Your task to perform on an android device: all mails in gmail Image 0: 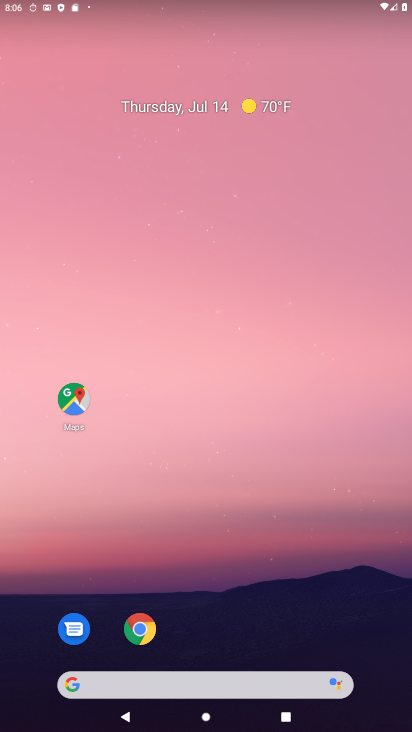
Step 0: drag from (328, 347) to (349, 21)
Your task to perform on an android device: all mails in gmail Image 1: 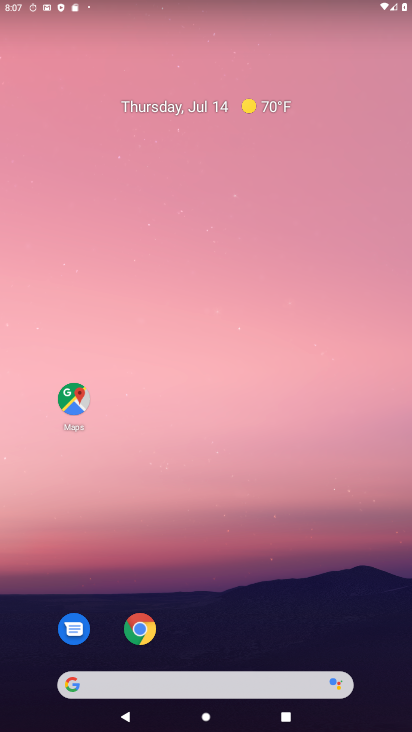
Step 1: drag from (272, 541) to (132, 0)
Your task to perform on an android device: all mails in gmail Image 2: 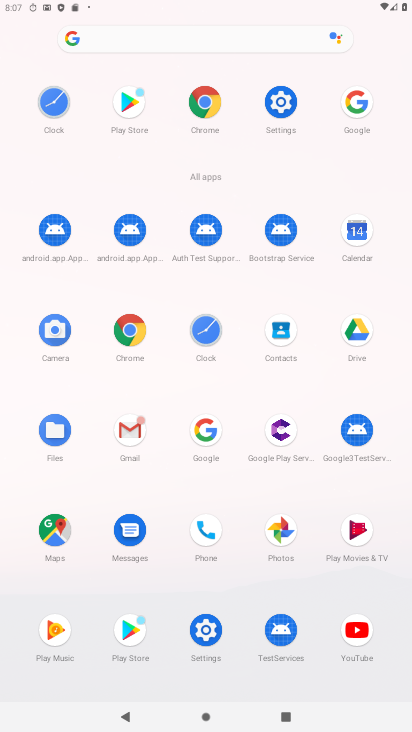
Step 2: click (142, 432)
Your task to perform on an android device: all mails in gmail Image 3: 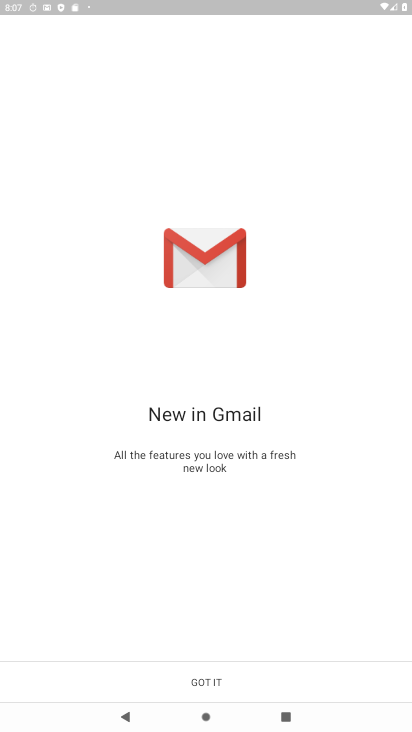
Step 3: click (232, 676)
Your task to perform on an android device: all mails in gmail Image 4: 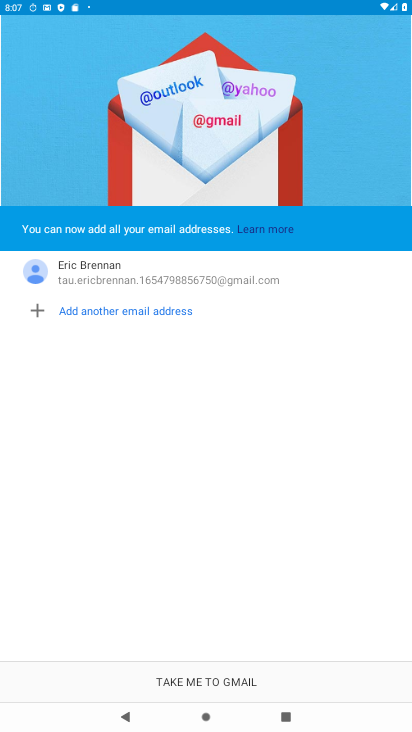
Step 4: click (221, 672)
Your task to perform on an android device: all mails in gmail Image 5: 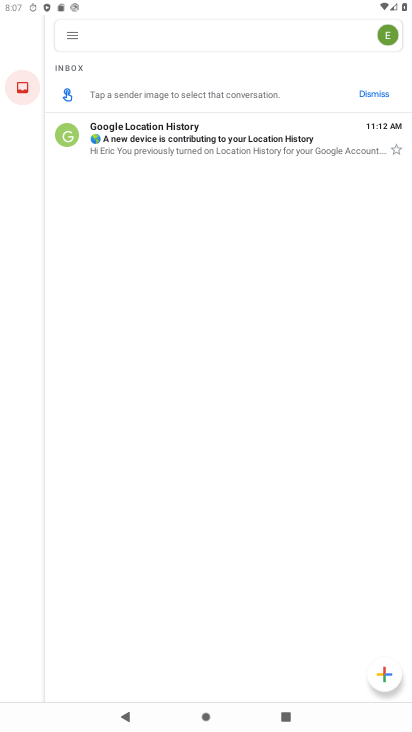
Step 5: click (72, 31)
Your task to perform on an android device: all mails in gmail Image 6: 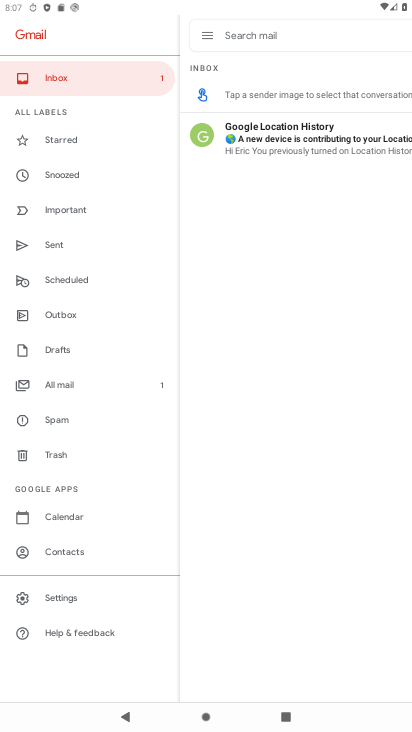
Step 6: click (80, 388)
Your task to perform on an android device: all mails in gmail Image 7: 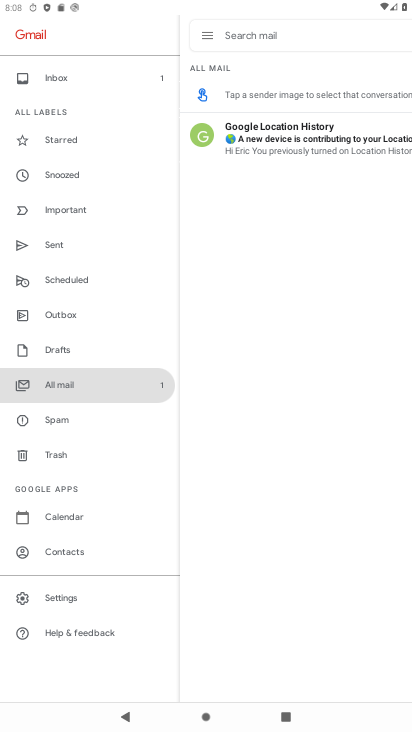
Step 7: task complete